Your task to perform on an android device: turn off translation in the chrome app Image 0: 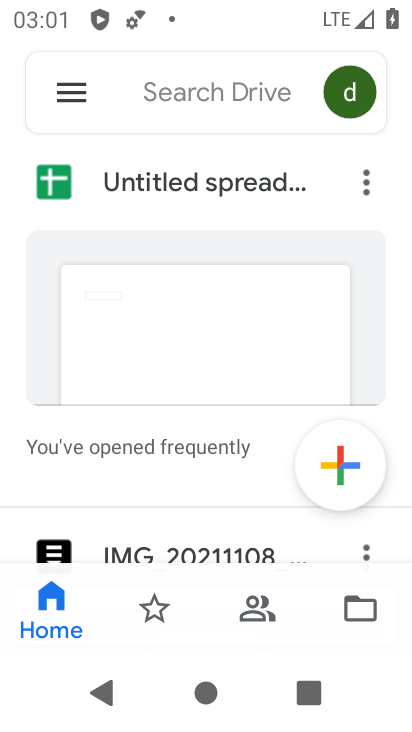
Step 0: press home button
Your task to perform on an android device: turn off translation in the chrome app Image 1: 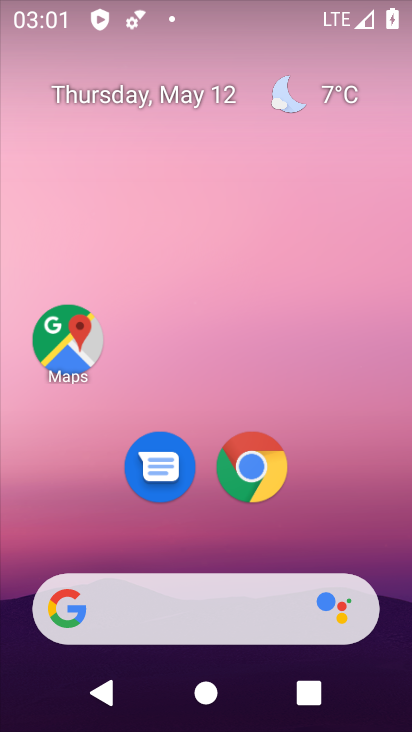
Step 1: click (248, 469)
Your task to perform on an android device: turn off translation in the chrome app Image 2: 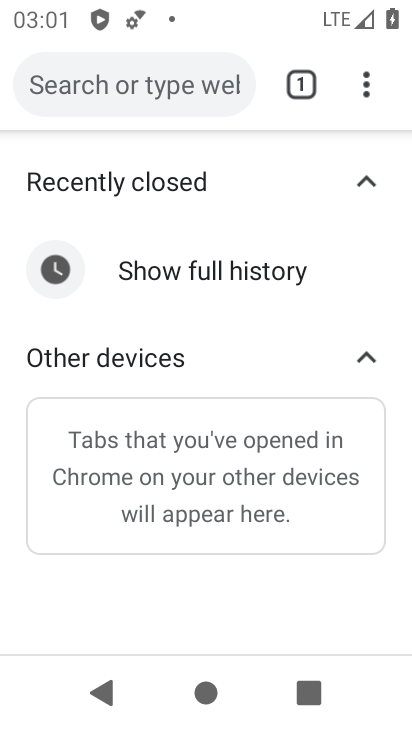
Step 2: click (377, 86)
Your task to perform on an android device: turn off translation in the chrome app Image 3: 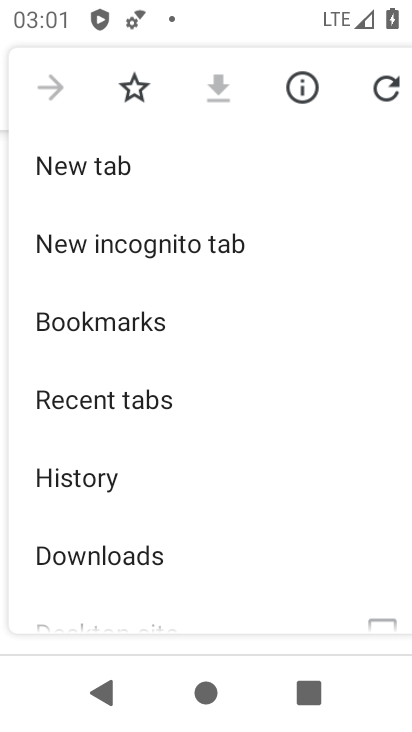
Step 3: drag from (263, 501) to (220, 109)
Your task to perform on an android device: turn off translation in the chrome app Image 4: 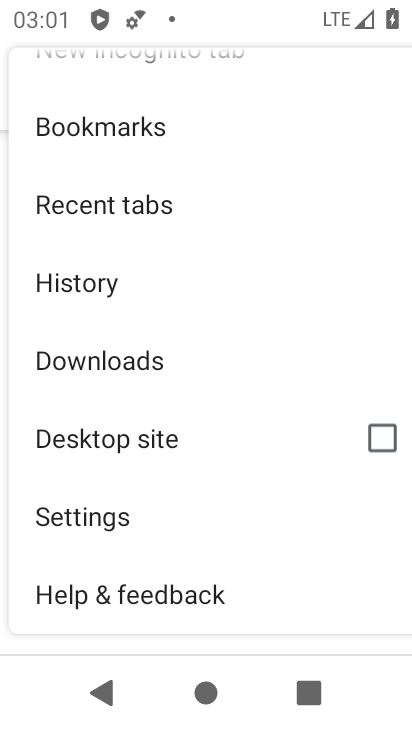
Step 4: click (97, 535)
Your task to perform on an android device: turn off translation in the chrome app Image 5: 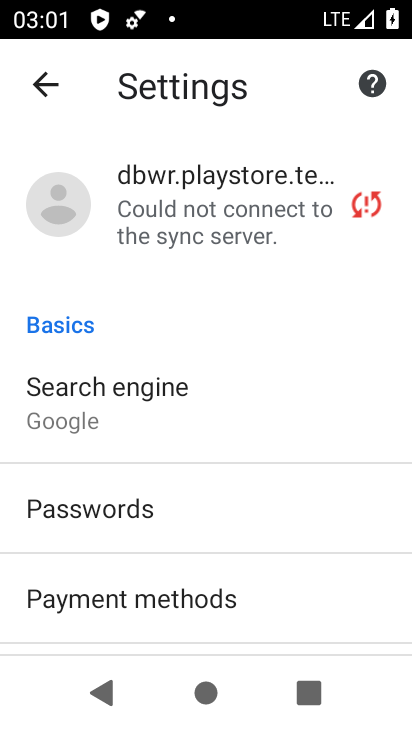
Step 5: drag from (302, 581) to (282, 195)
Your task to perform on an android device: turn off translation in the chrome app Image 6: 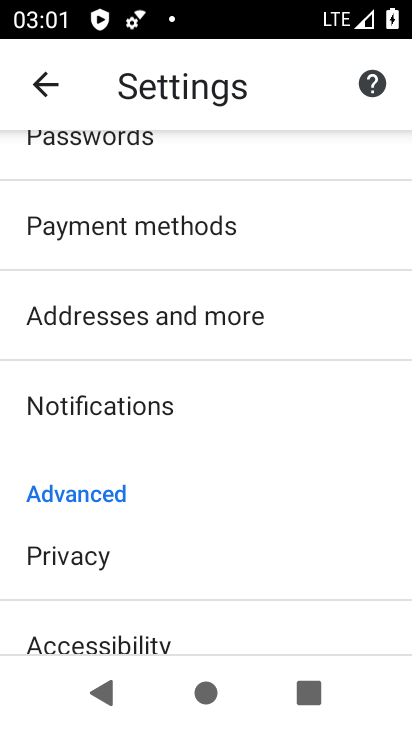
Step 6: drag from (252, 603) to (246, 244)
Your task to perform on an android device: turn off translation in the chrome app Image 7: 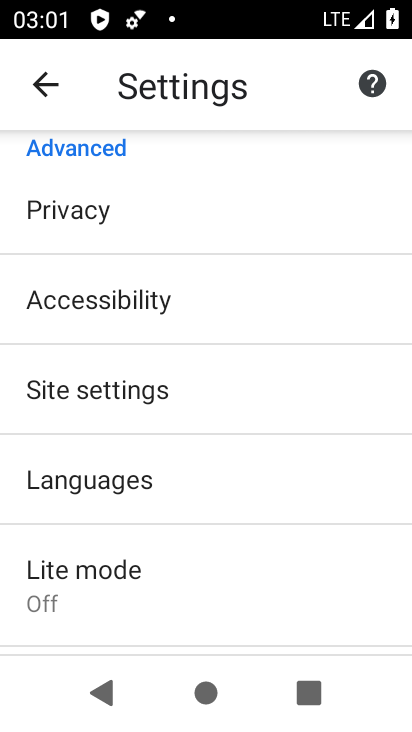
Step 7: drag from (230, 566) to (224, 182)
Your task to perform on an android device: turn off translation in the chrome app Image 8: 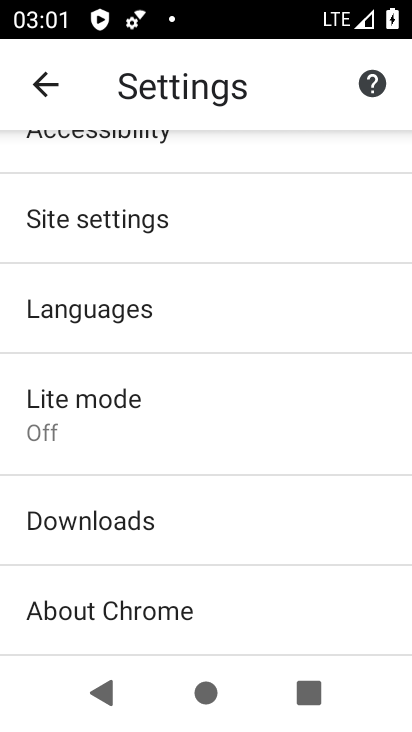
Step 8: click (182, 299)
Your task to perform on an android device: turn off translation in the chrome app Image 9: 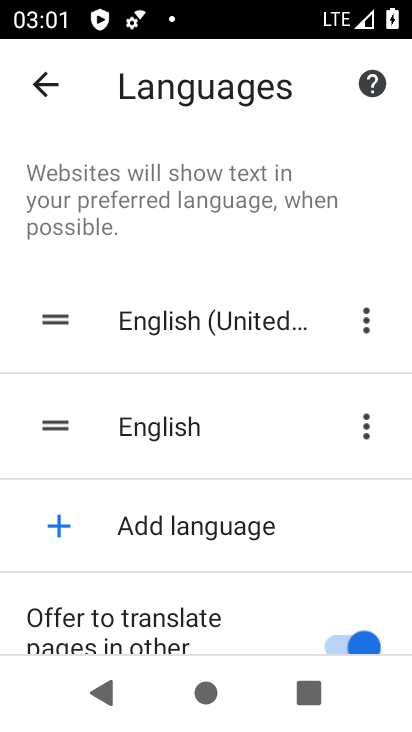
Step 9: click (348, 632)
Your task to perform on an android device: turn off translation in the chrome app Image 10: 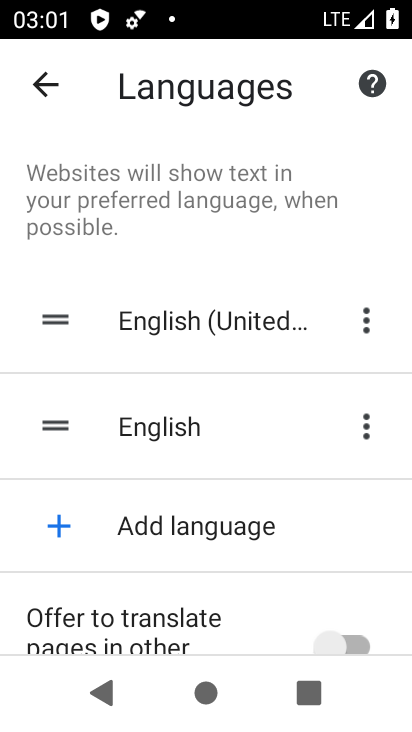
Step 10: task complete